Your task to perform on an android device: turn notification dots off Image 0: 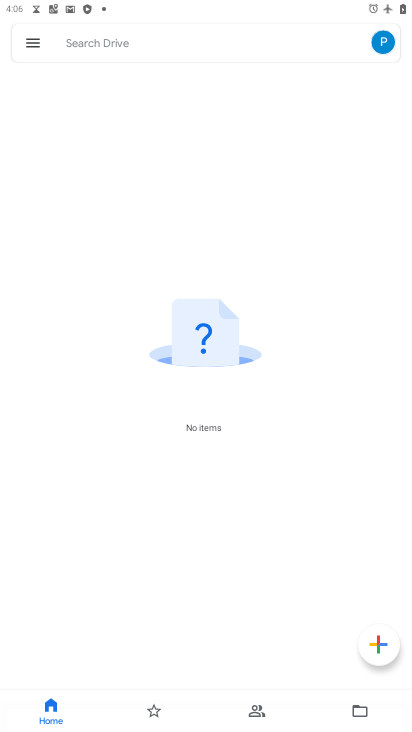
Step 0: press home button
Your task to perform on an android device: turn notification dots off Image 1: 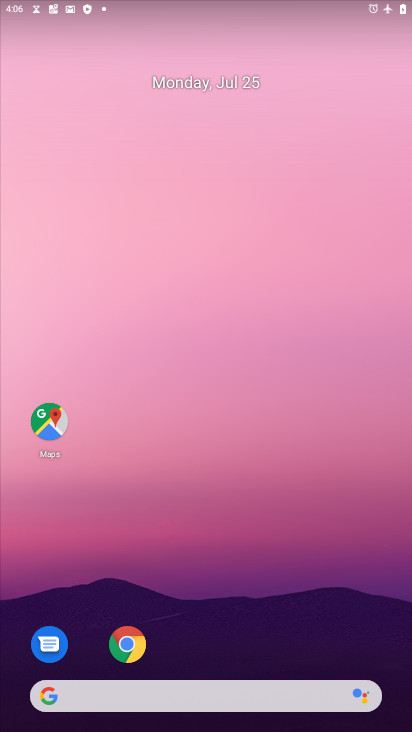
Step 1: drag from (241, 636) to (240, 153)
Your task to perform on an android device: turn notification dots off Image 2: 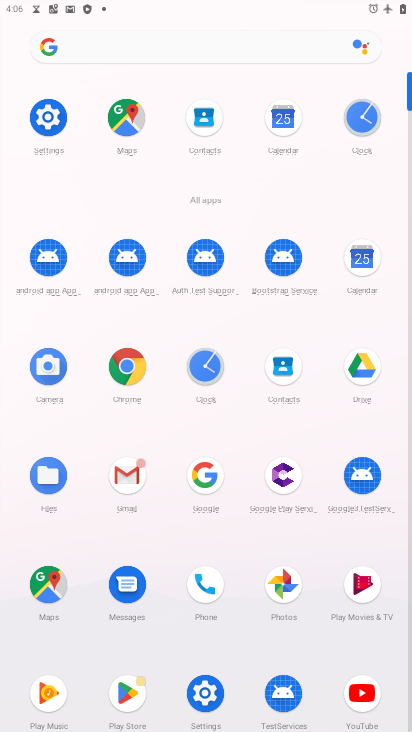
Step 2: click (45, 120)
Your task to perform on an android device: turn notification dots off Image 3: 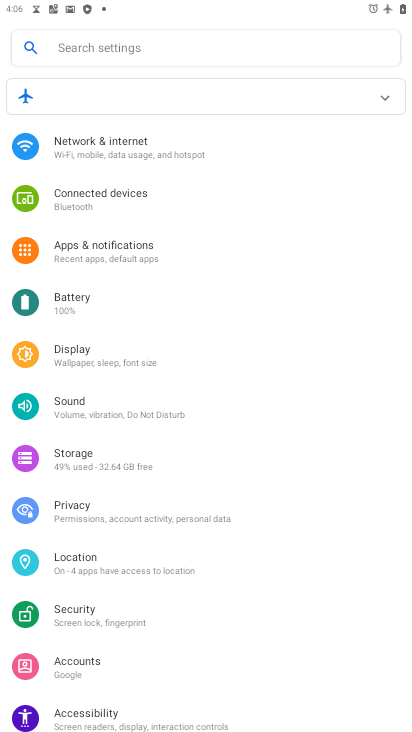
Step 3: click (62, 254)
Your task to perform on an android device: turn notification dots off Image 4: 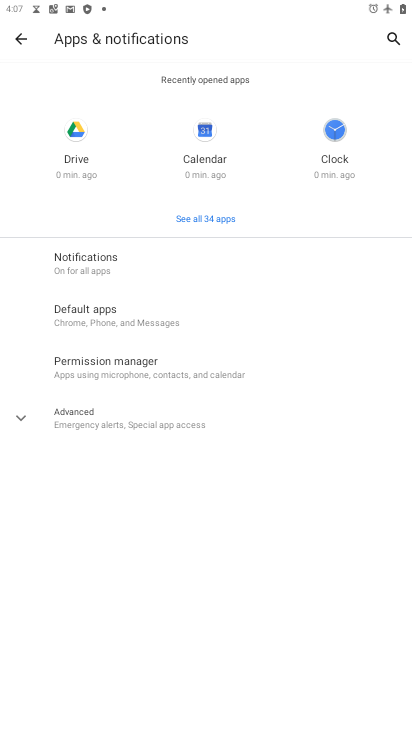
Step 4: click (95, 256)
Your task to perform on an android device: turn notification dots off Image 5: 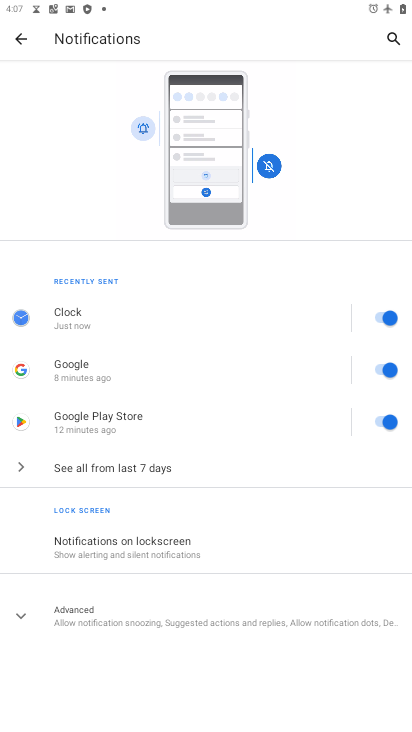
Step 5: click (20, 608)
Your task to perform on an android device: turn notification dots off Image 6: 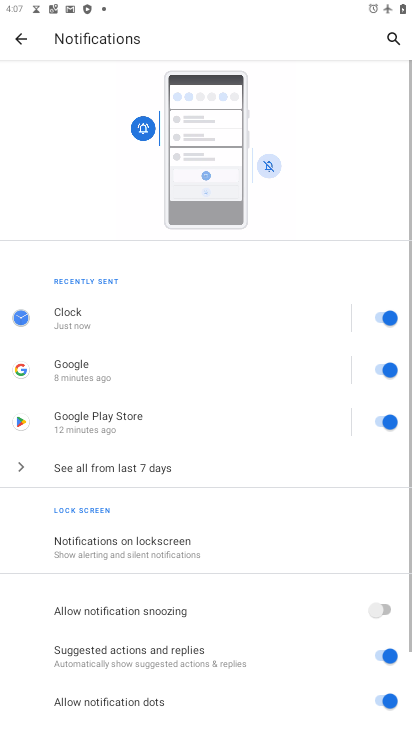
Step 6: drag from (290, 503) to (306, 226)
Your task to perform on an android device: turn notification dots off Image 7: 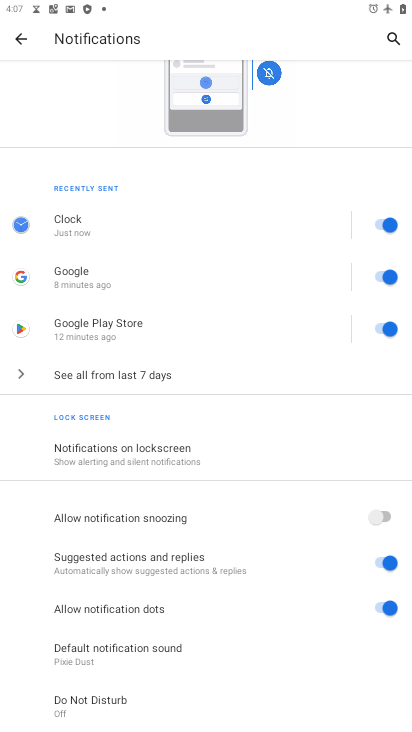
Step 7: click (385, 607)
Your task to perform on an android device: turn notification dots off Image 8: 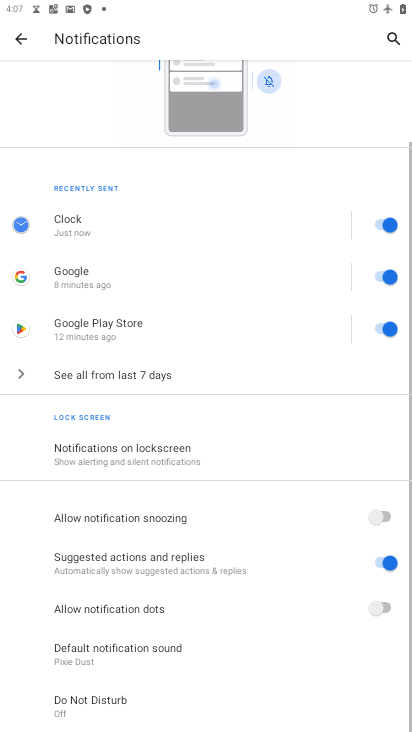
Step 8: task complete